Your task to perform on an android device: change the clock display to analog Image 0: 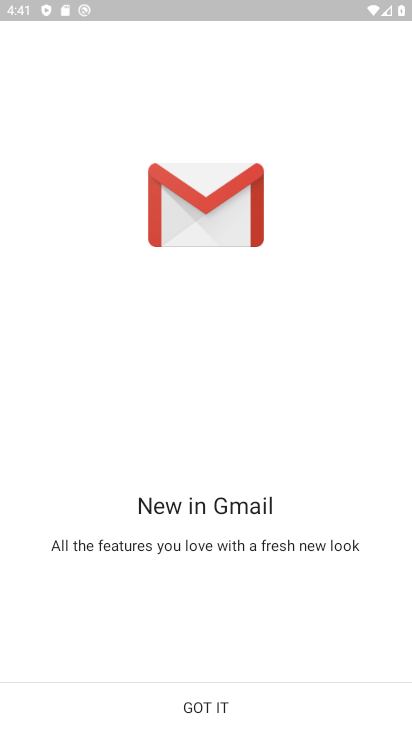
Step 0: press home button
Your task to perform on an android device: change the clock display to analog Image 1: 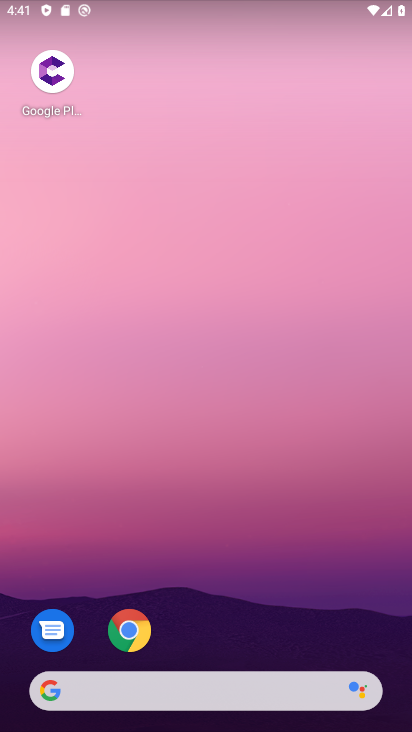
Step 1: drag from (259, 631) to (409, 3)
Your task to perform on an android device: change the clock display to analog Image 2: 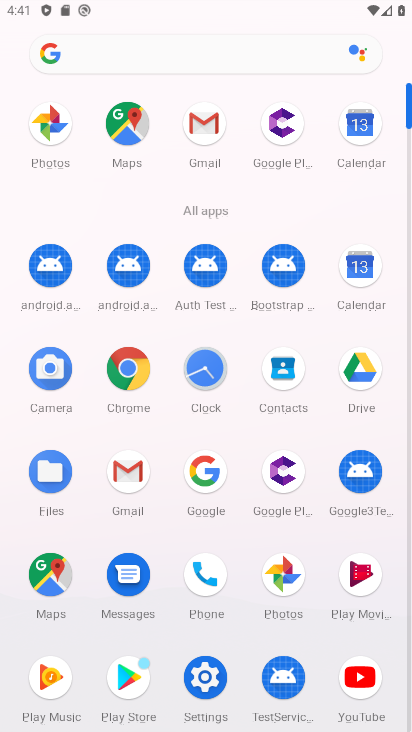
Step 2: click (199, 367)
Your task to perform on an android device: change the clock display to analog Image 3: 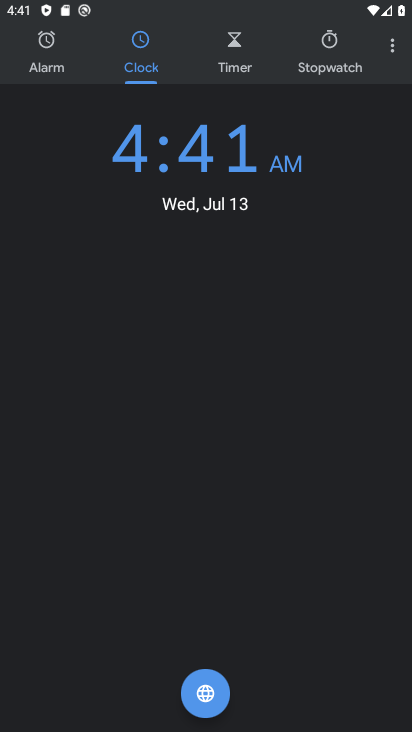
Step 3: click (387, 47)
Your task to perform on an android device: change the clock display to analog Image 4: 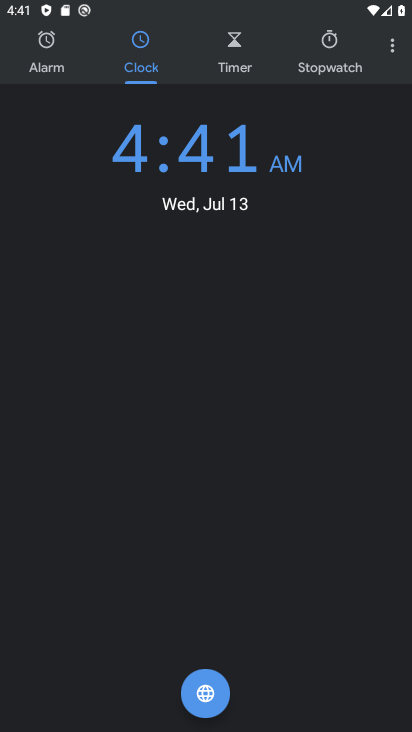
Step 4: click (398, 51)
Your task to perform on an android device: change the clock display to analog Image 5: 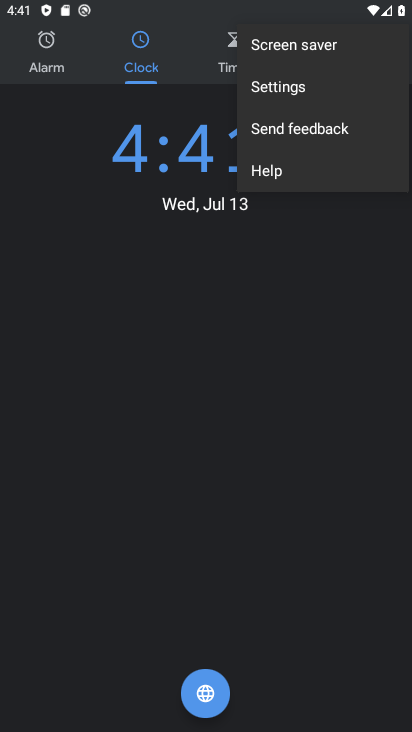
Step 5: click (264, 92)
Your task to perform on an android device: change the clock display to analog Image 6: 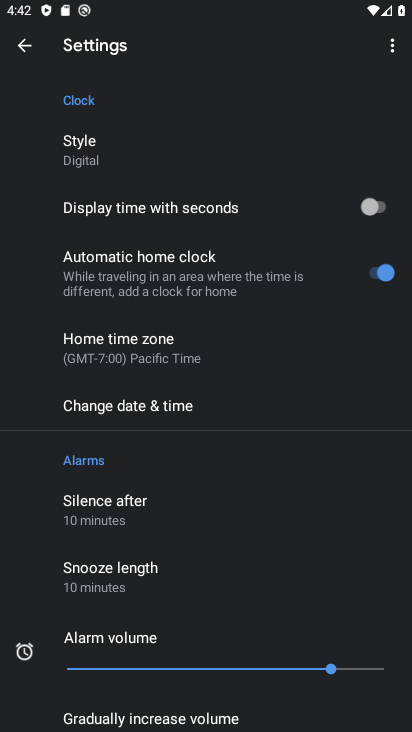
Step 6: click (67, 140)
Your task to perform on an android device: change the clock display to analog Image 7: 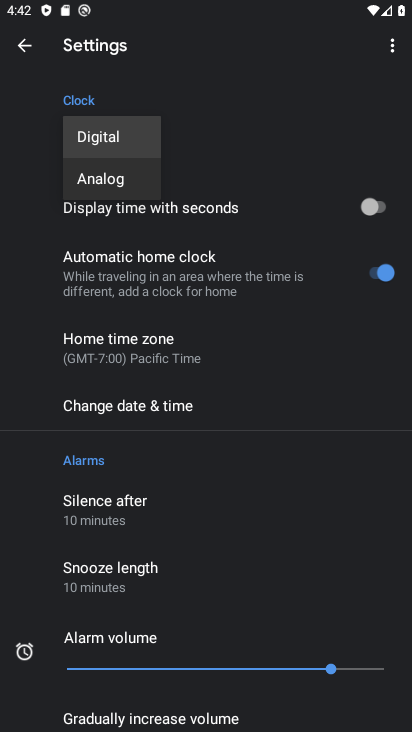
Step 7: click (109, 175)
Your task to perform on an android device: change the clock display to analog Image 8: 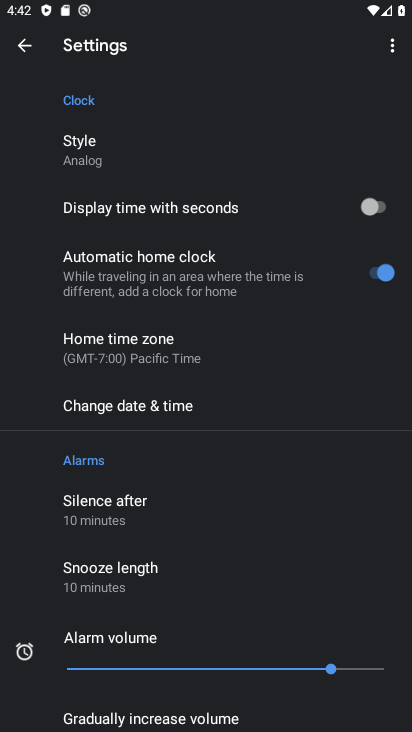
Step 8: task complete